Your task to perform on an android device: find which apps use the phone's location Image 0: 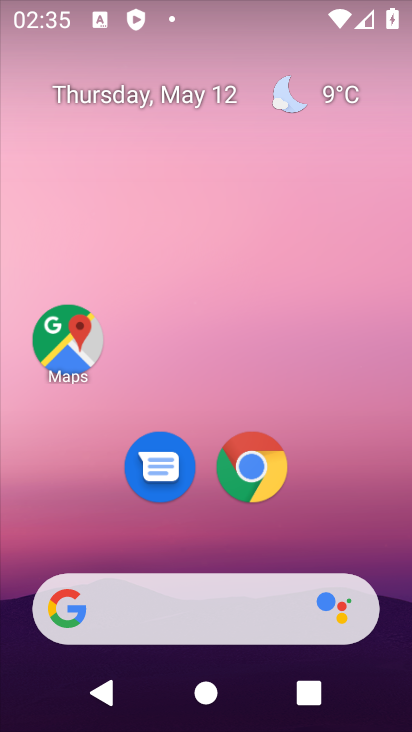
Step 0: drag from (330, 540) to (334, 239)
Your task to perform on an android device: find which apps use the phone's location Image 1: 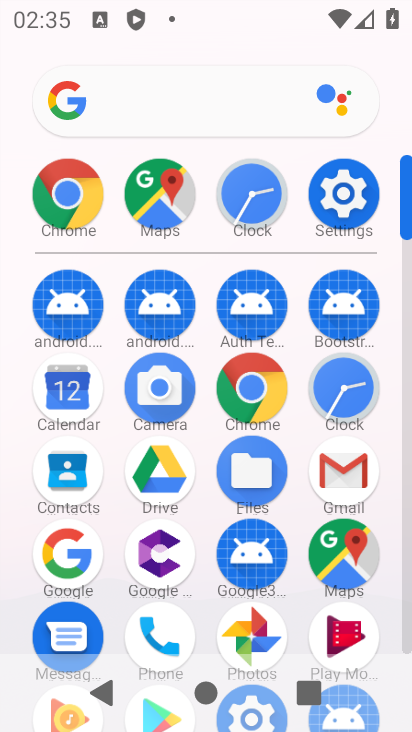
Step 1: click (333, 171)
Your task to perform on an android device: find which apps use the phone's location Image 2: 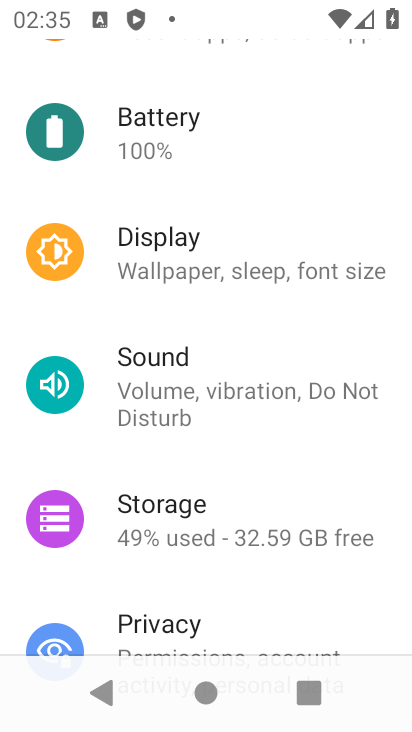
Step 2: drag from (251, 476) to (295, 225)
Your task to perform on an android device: find which apps use the phone's location Image 3: 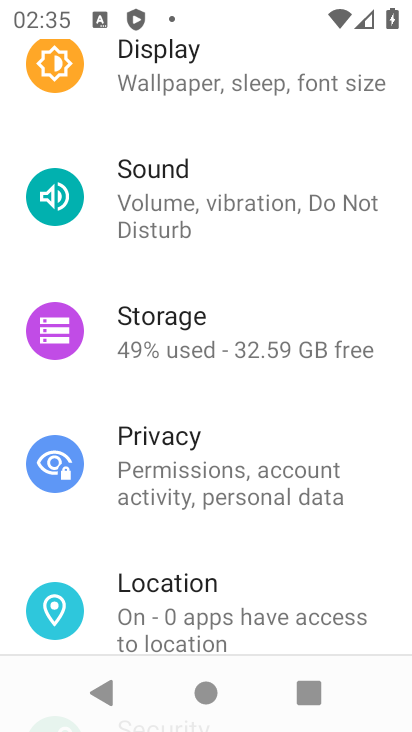
Step 3: click (221, 599)
Your task to perform on an android device: find which apps use the phone's location Image 4: 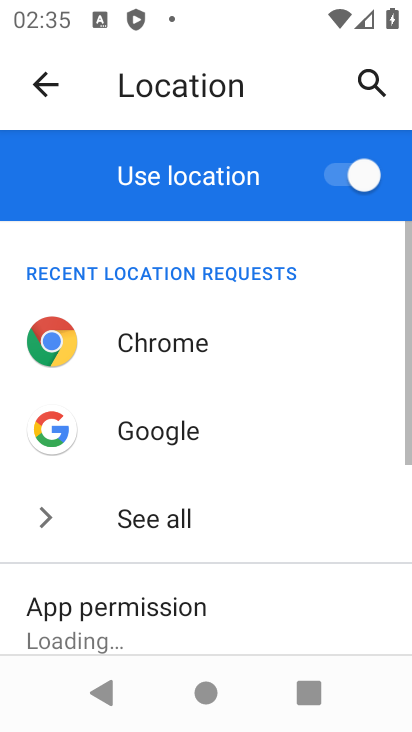
Step 4: task complete